Your task to perform on an android device: Go to accessibility settings Image 0: 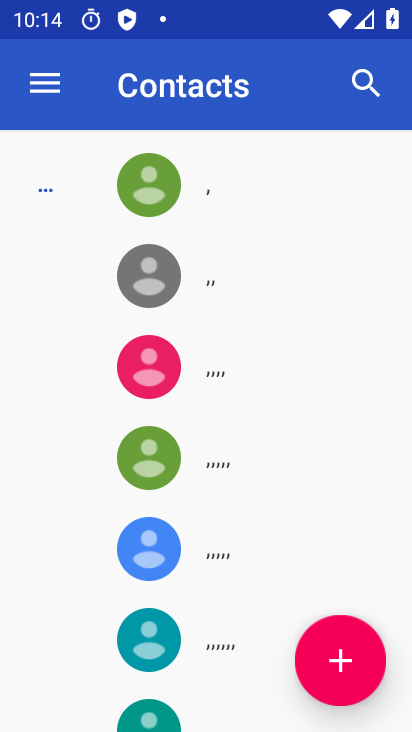
Step 0: press home button
Your task to perform on an android device: Go to accessibility settings Image 1: 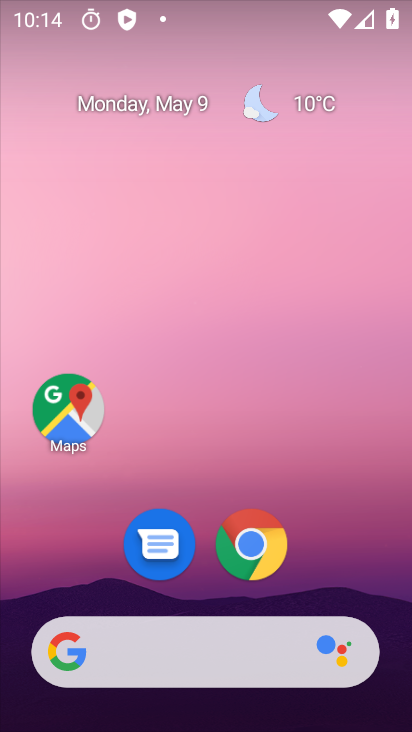
Step 1: click (383, 325)
Your task to perform on an android device: Go to accessibility settings Image 2: 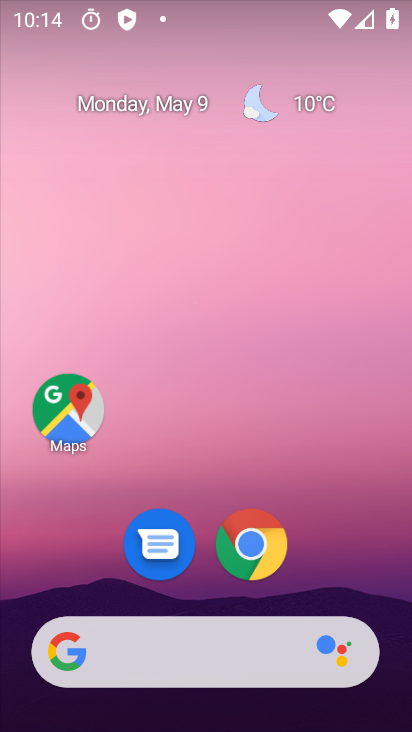
Step 2: drag from (394, 690) to (381, 366)
Your task to perform on an android device: Go to accessibility settings Image 3: 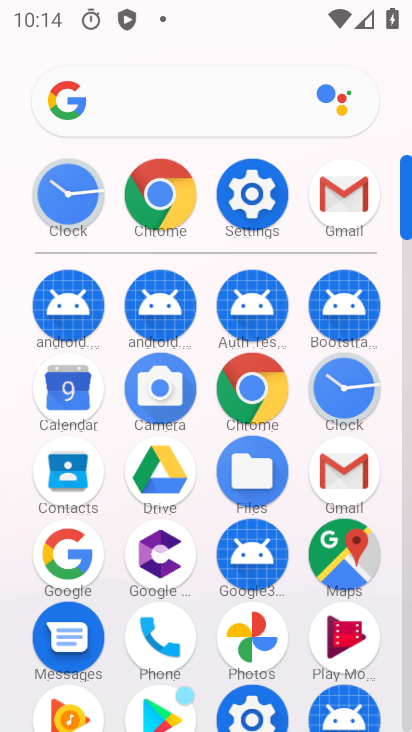
Step 3: click (263, 206)
Your task to perform on an android device: Go to accessibility settings Image 4: 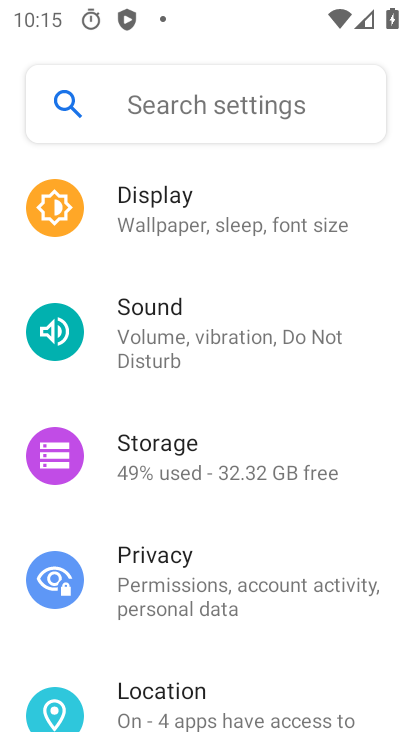
Step 4: drag from (365, 653) to (345, 303)
Your task to perform on an android device: Go to accessibility settings Image 5: 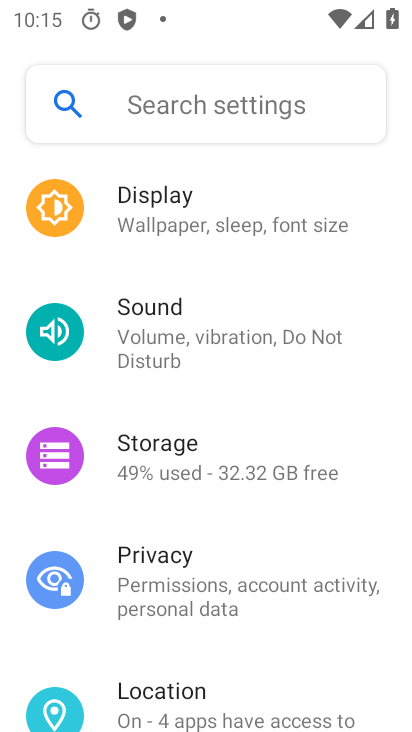
Step 5: drag from (376, 456) to (375, 349)
Your task to perform on an android device: Go to accessibility settings Image 6: 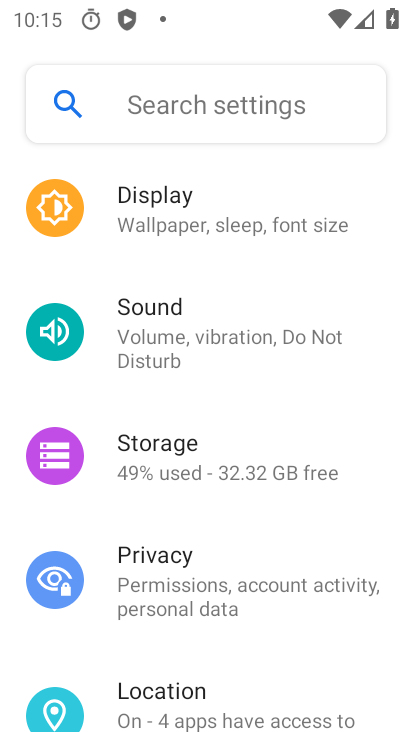
Step 6: click (358, 298)
Your task to perform on an android device: Go to accessibility settings Image 7: 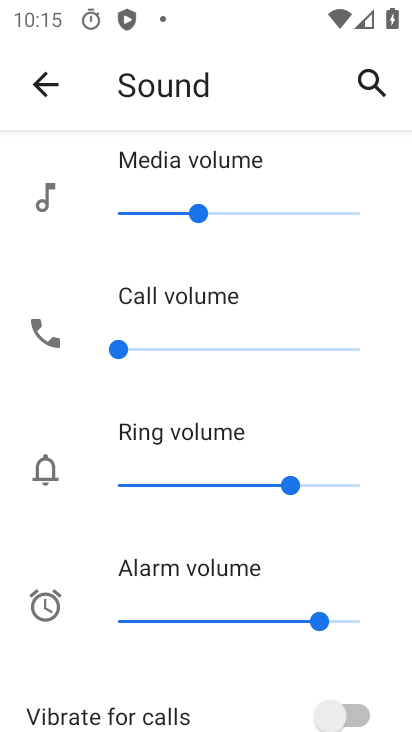
Step 7: click (59, 90)
Your task to perform on an android device: Go to accessibility settings Image 8: 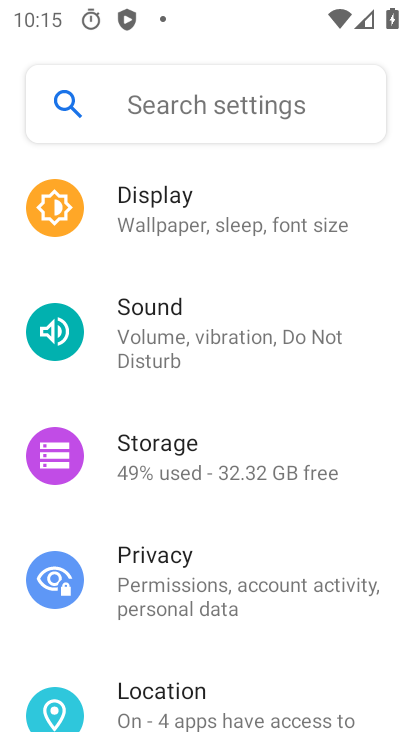
Step 8: drag from (369, 655) to (359, 361)
Your task to perform on an android device: Go to accessibility settings Image 9: 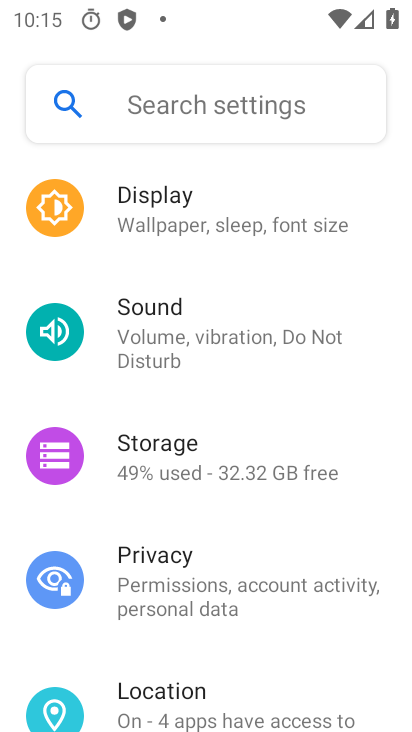
Step 9: click (271, 243)
Your task to perform on an android device: Go to accessibility settings Image 10: 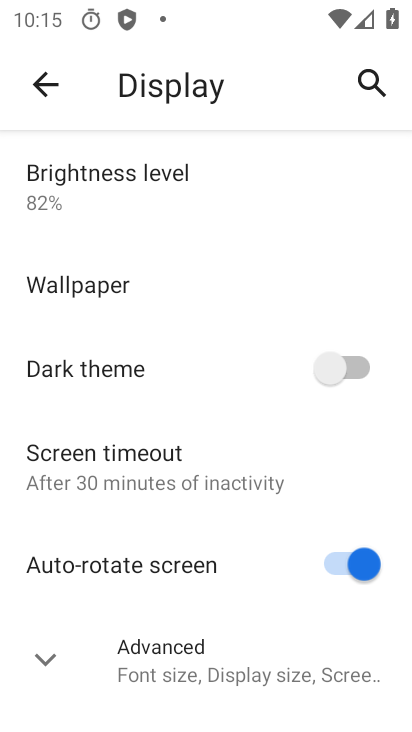
Step 10: drag from (373, 692) to (379, 394)
Your task to perform on an android device: Go to accessibility settings Image 11: 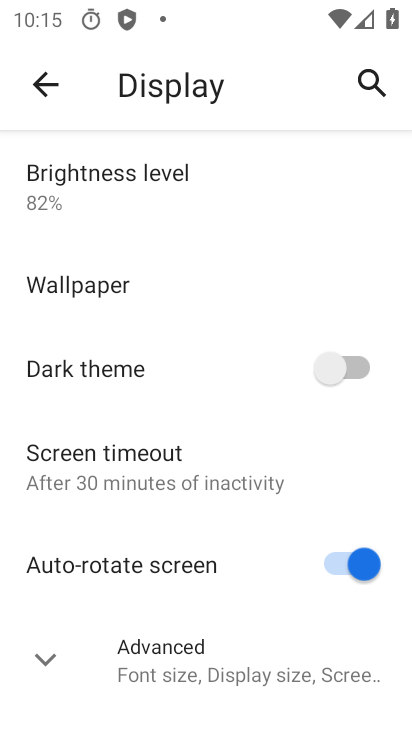
Step 11: click (42, 79)
Your task to perform on an android device: Go to accessibility settings Image 12: 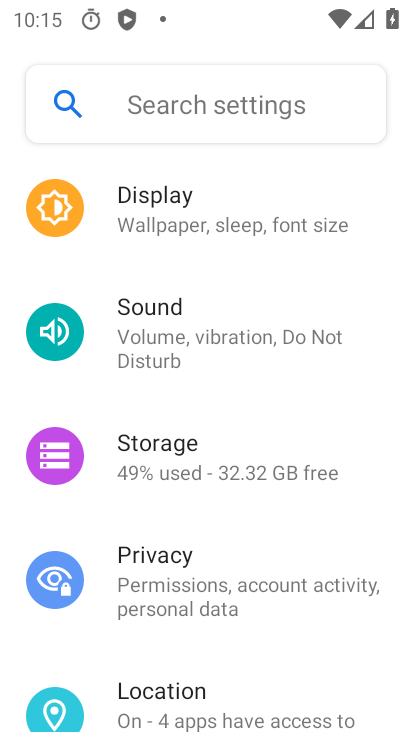
Step 12: drag from (378, 657) to (378, 269)
Your task to perform on an android device: Go to accessibility settings Image 13: 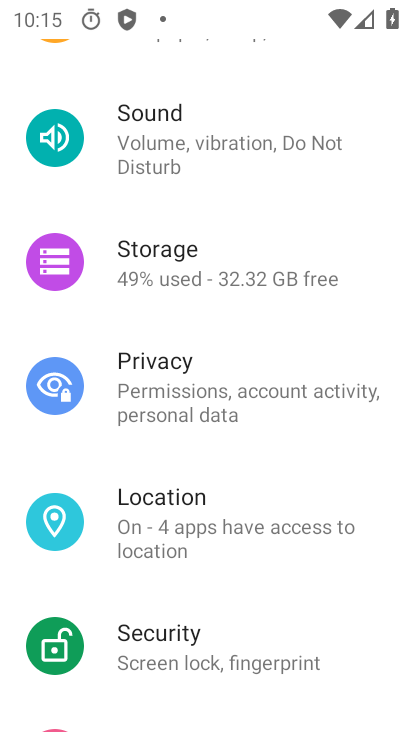
Step 13: drag from (383, 678) to (389, 412)
Your task to perform on an android device: Go to accessibility settings Image 14: 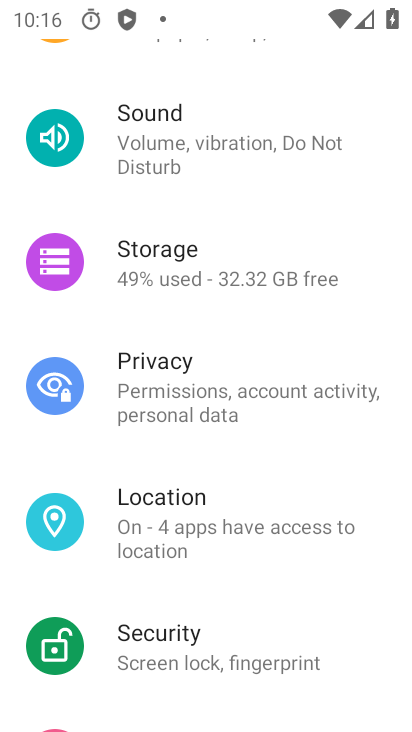
Step 14: drag from (355, 664) to (379, 368)
Your task to perform on an android device: Go to accessibility settings Image 15: 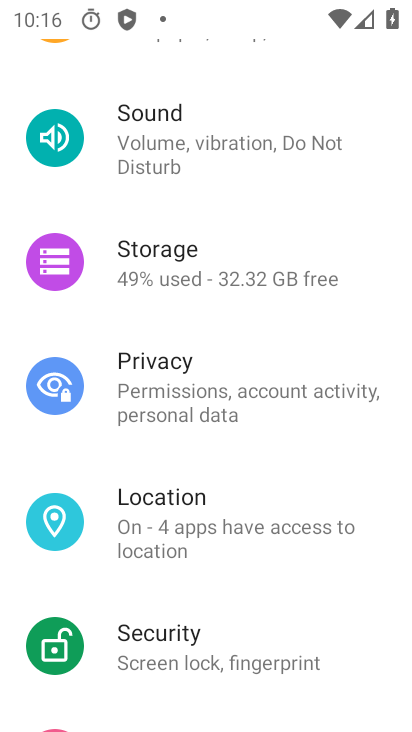
Step 15: drag from (369, 488) to (352, 277)
Your task to perform on an android device: Go to accessibility settings Image 16: 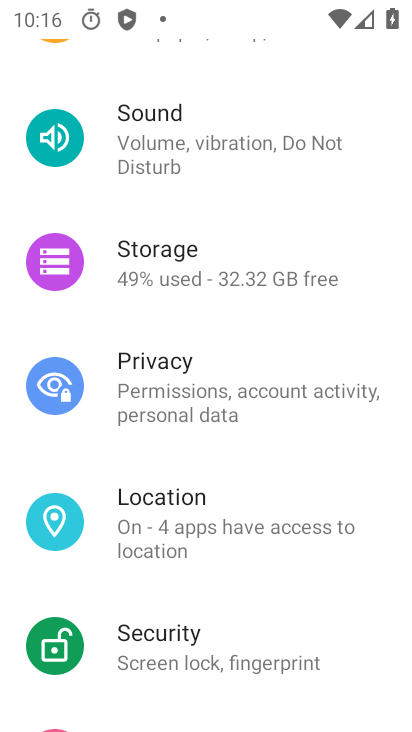
Step 16: drag from (353, 643) to (303, 232)
Your task to perform on an android device: Go to accessibility settings Image 17: 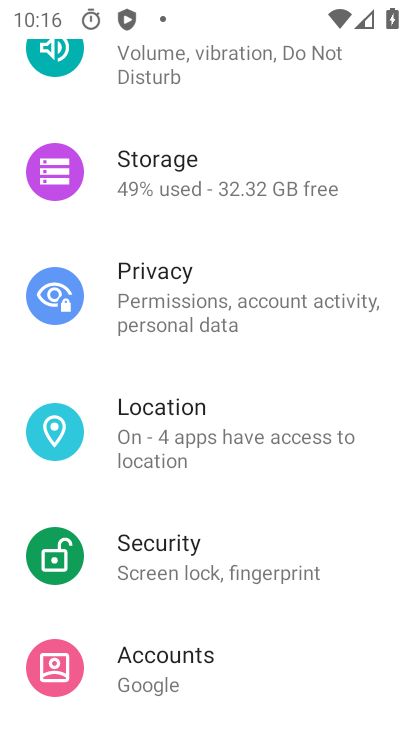
Step 17: drag from (351, 663) to (337, 296)
Your task to perform on an android device: Go to accessibility settings Image 18: 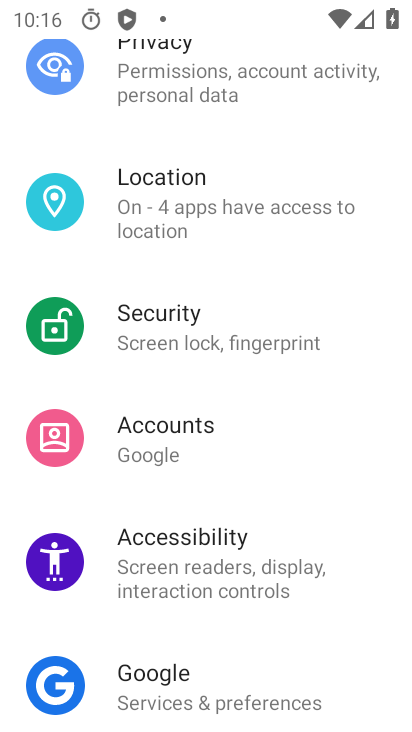
Step 18: click (171, 539)
Your task to perform on an android device: Go to accessibility settings Image 19: 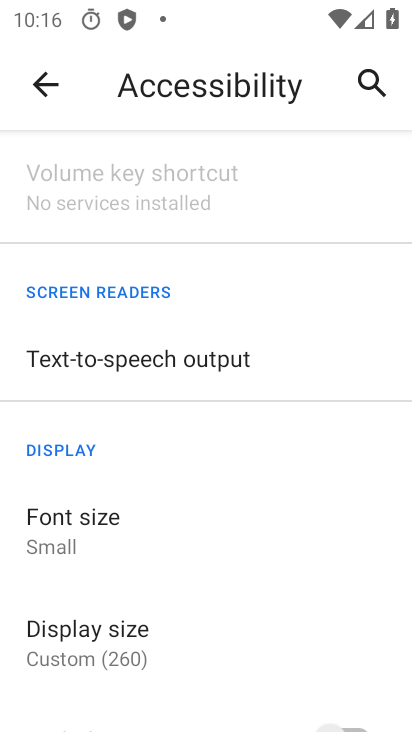
Step 19: click (271, 378)
Your task to perform on an android device: Go to accessibility settings Image 20: 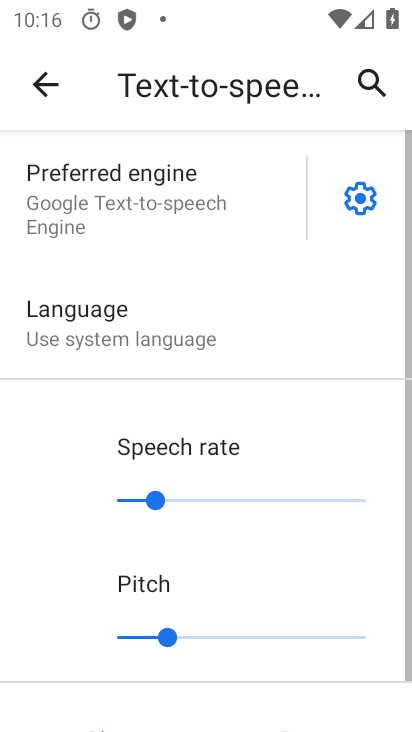
Step 20: task complete